Your task to perform on an android device: Open ESPN.com Image 0: 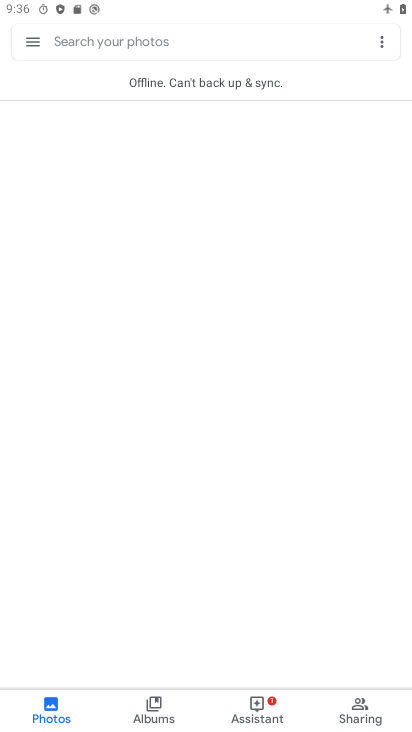
Step 0: press home button
Your task to perform on an android device: Open ESPN.com Image 1: 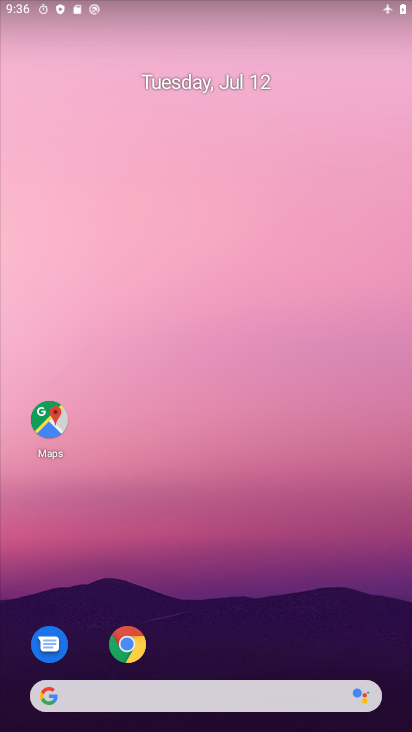
Step 1: click (133, 637)
Your task to perform on an android device: Open ESPN.com Image 2: 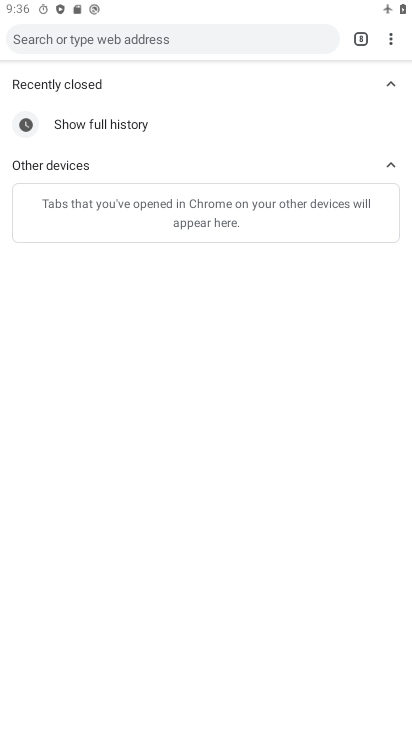
Step 2: click (364, 28)
Your task to perform on an android device: Open ESPN.com Image 3: 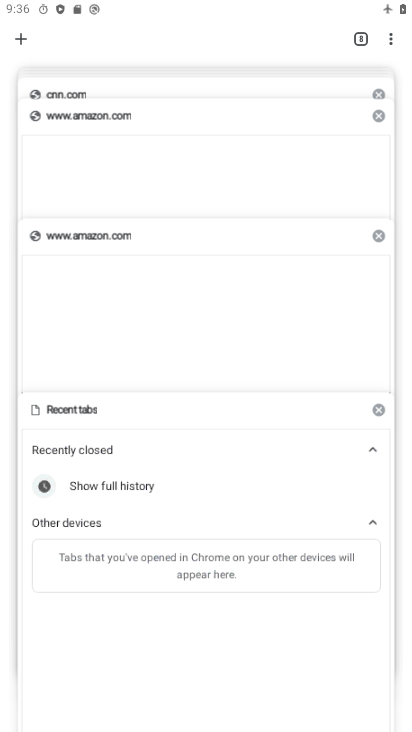
Step 3: click (22, 36)
Your task to perform on an android device: Open ESPN.com Image 4: 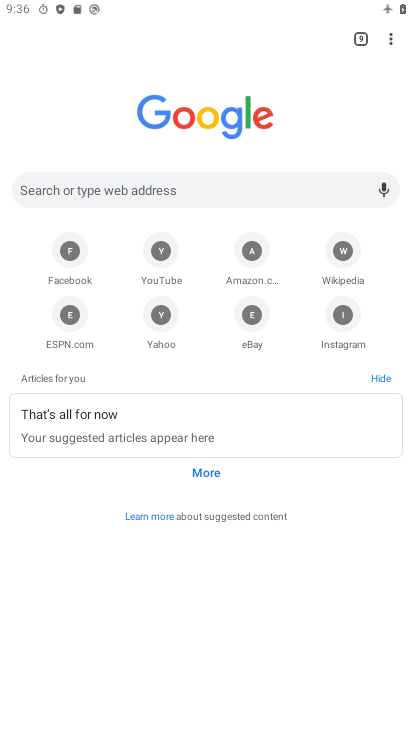
Step 4: click (67, 326)
Your task to perform on an android device: Open ESPN.com Image 5: 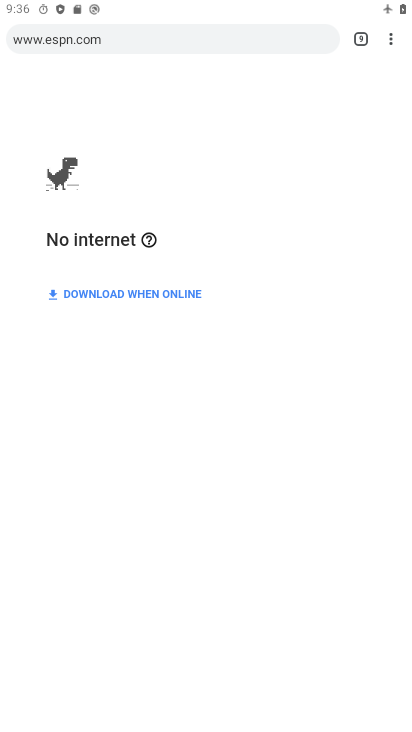
Step 5: task complete